Your task to perform on an android device: What's the weather today? Image 0: 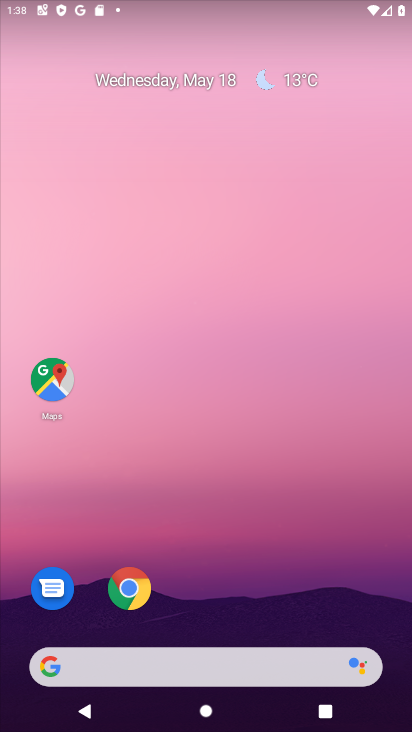
Step 0: drag from (241, 590) to (0, 12)
Your task to perform on an android device: What's the weather today? Image 1: 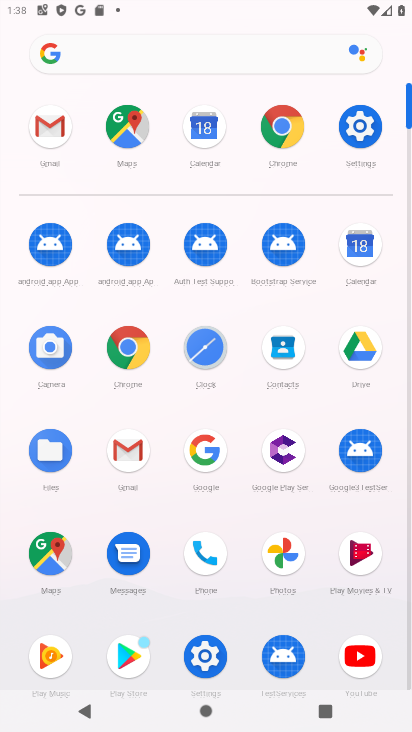
Step 1: click (132, 51)
Your task to perform on an android device: What's the weather today? Image 2: 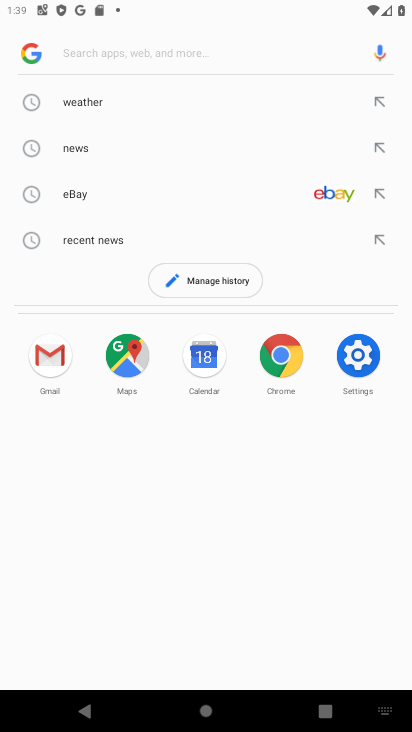
Step 2: type "weather today"
Your task to perform on an android device: What's the weather today? Image 3: 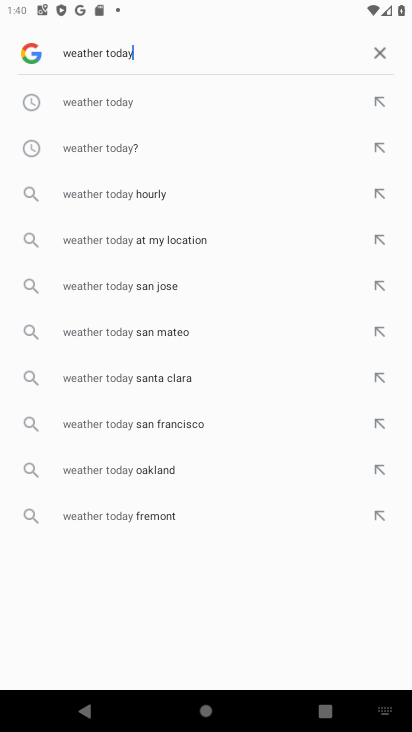
Step 3: click (170, 96)
Your task to perform on an android device: What's the weather today? Image 4: 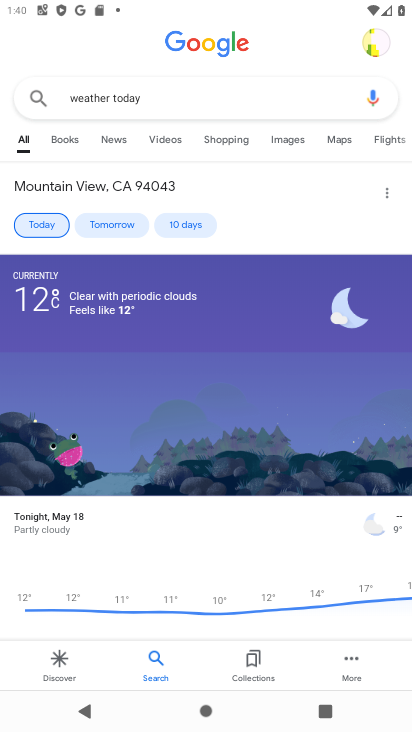
Step 4: task complete